Your task to perform on an android device: turn off priority inbox in the gmail app Image 0: 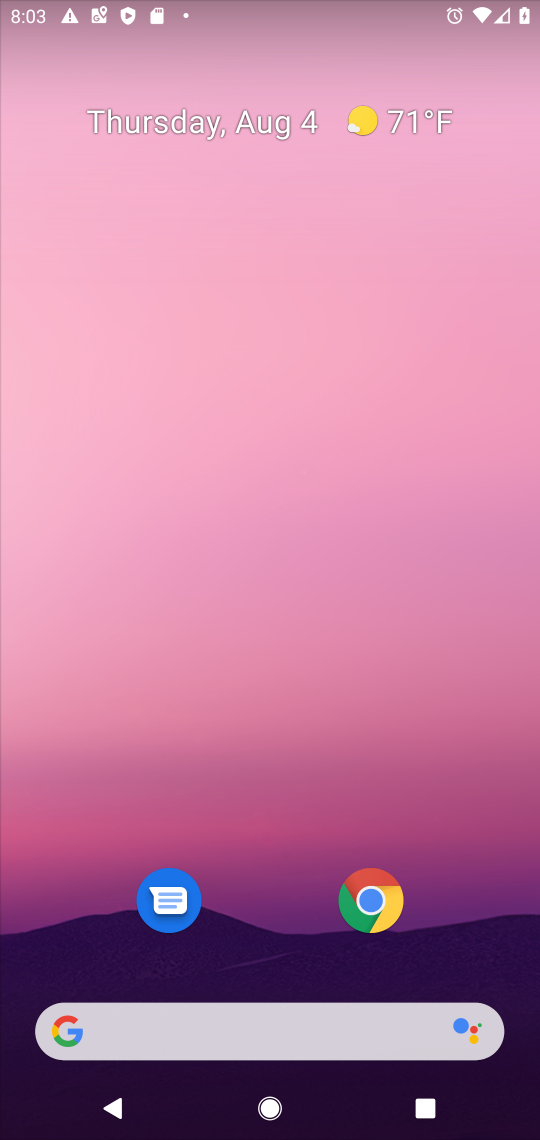
Step 0: drag from (199, 1026) to (209, 102)
Your task to perform on an android device: turn off priority inbox in the gmail app Image 1: 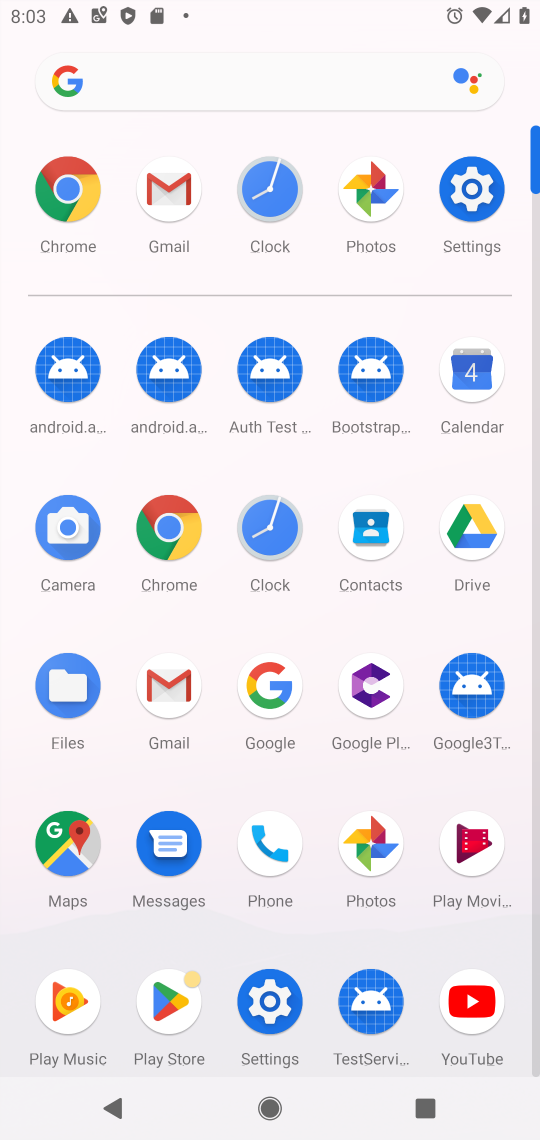
Step 1: click (166, 188)
Your task to perform on an android device: turn off priority inbox in the gmail app Image 2: 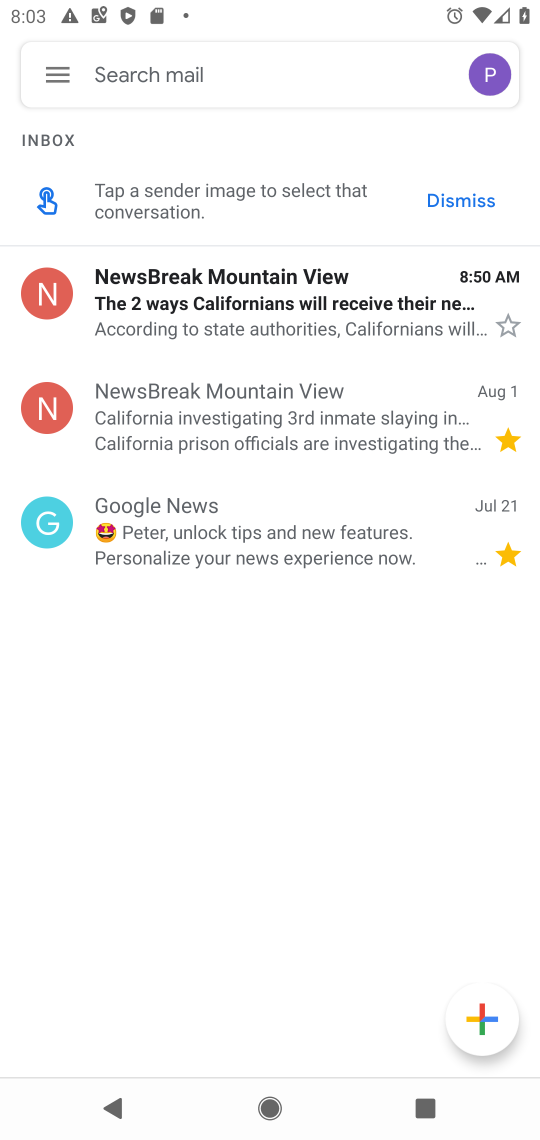
Step 2: click (56, 74)
Your task to perform on an android device: turn off priority inbox in the gmail app Image 3: 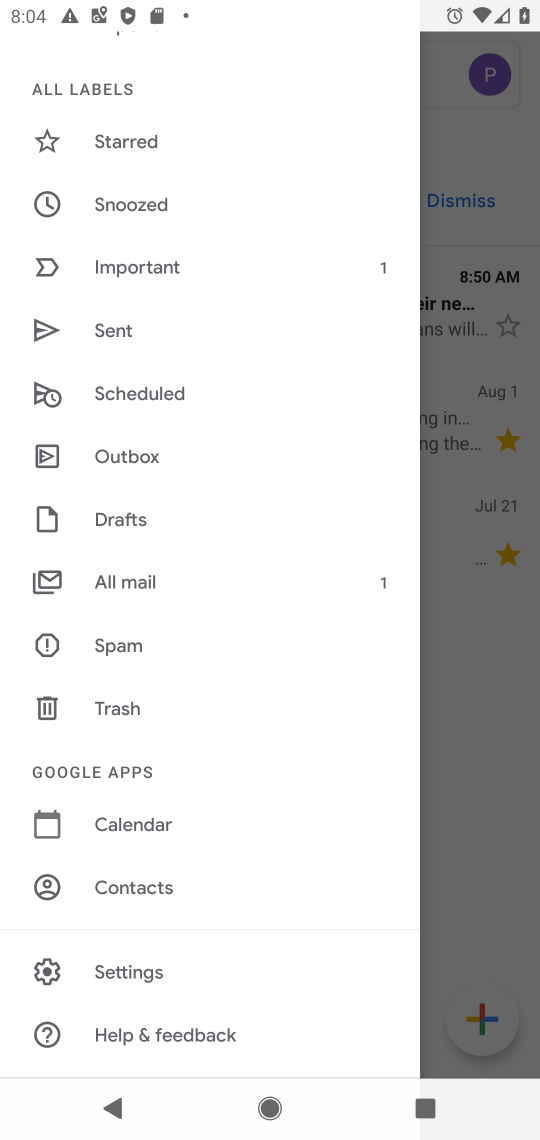
Step 3: click (132, 967)
Your task to perform on an android device: turn off priority inbox in the gmail app Image 4: 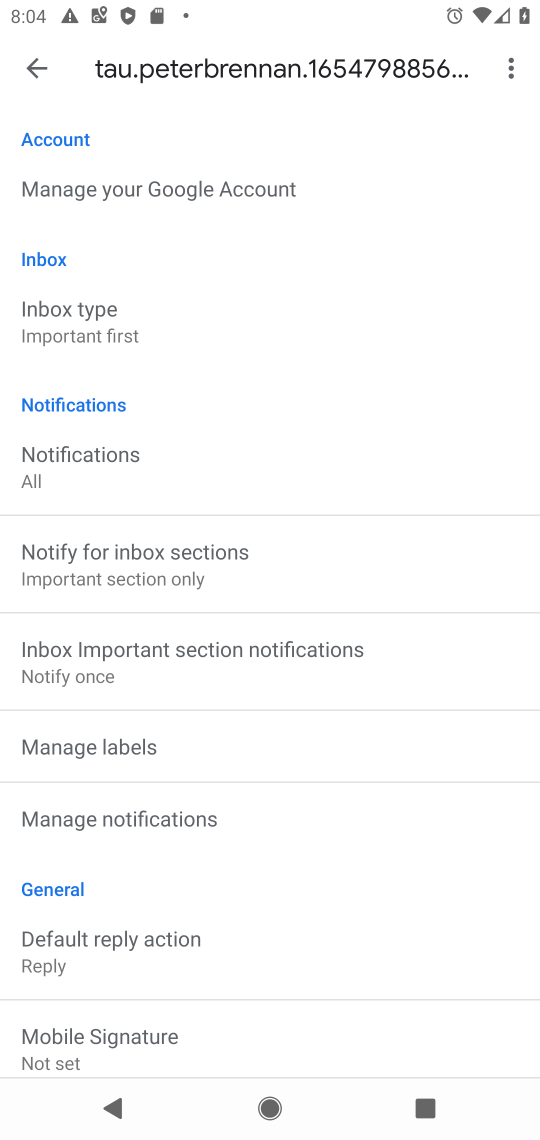
Step 4: task complete